Your task to perform on an android device: check google app version Image 0: 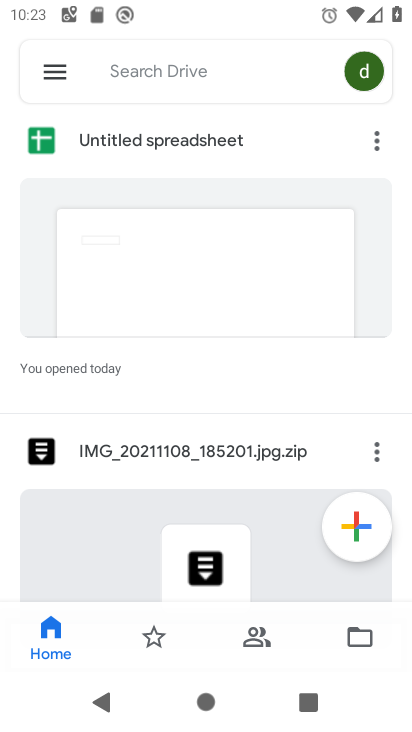
Step 0: press home button
Your task to perform on an android device: check google app version Image 1: 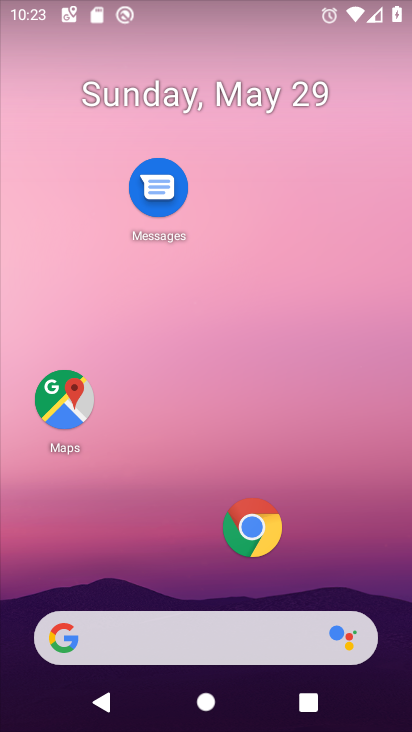
Step 1: drag from (204, 577) to (251, 40)
Your task to perform on an android device: check google app version Image 2: 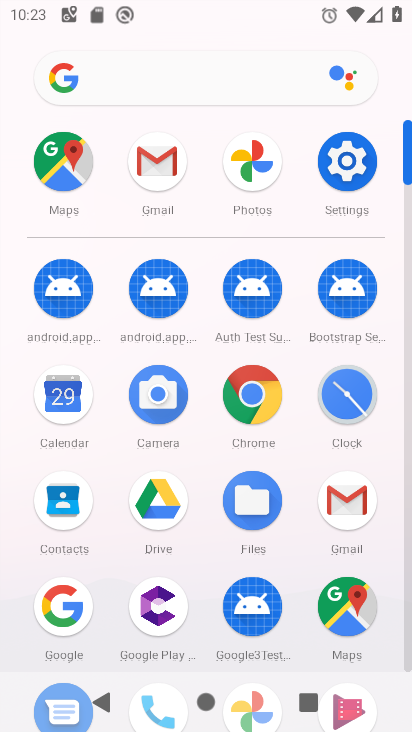
Step 2: click (57, 598)
Your task to perform on an android device: check google app version Image 3: 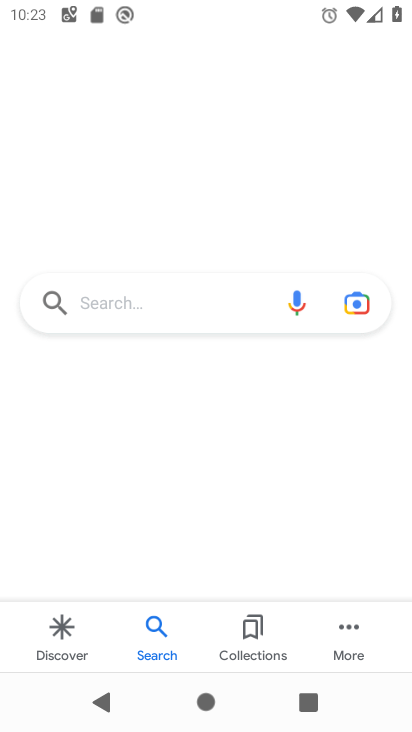
Step 3: click (350, 627)
Your task to perform on an android device: check google app version Image 4: 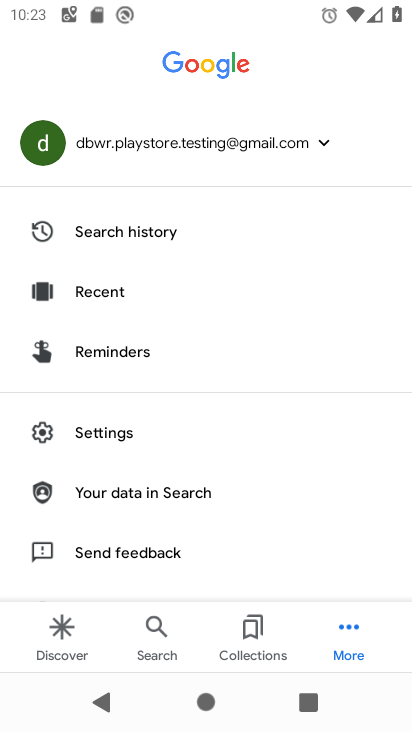
Step 4: click (143, 433)
Your task to perform on an android device: check google app version Image 5: 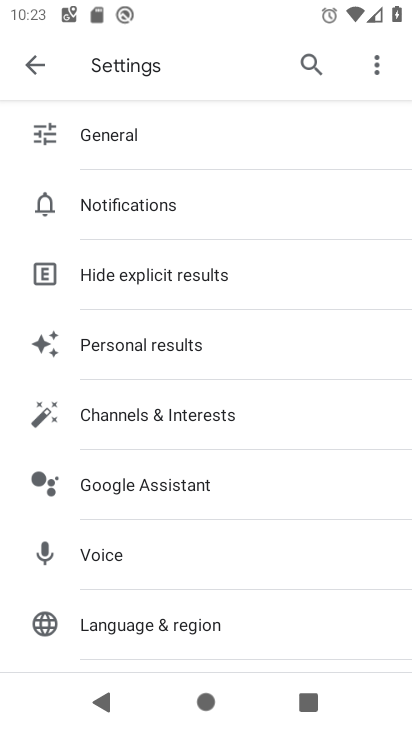
Step 5: drag from (154, 600) to (182, 110)
Your task to perform on an android device: check google app version Image 6: 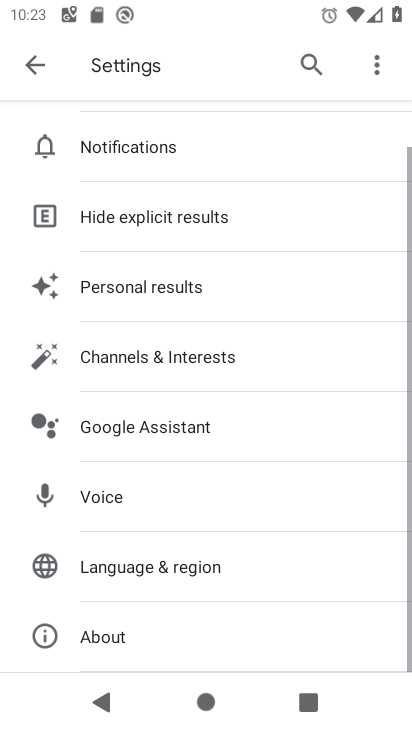
Step 6: click (147, 632)
Your task to perform on an android device: check google app version Image 7: 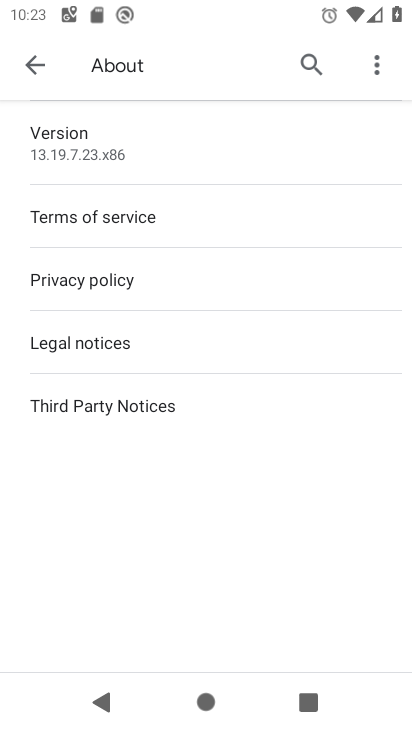
Step 7: task complete